Your task to perform on an android device: Clear the shopping cart on newegg.com. Search for "logitech g pro" on newegg.com, select the first entry, add it to the cart, then select checkout. Image 0: 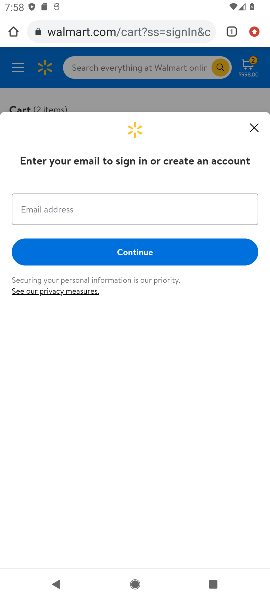
Step 0: press home button
Your task to perform on an android device: Clear the shopping cart on newegg.com. Search for "logitech g pro" on newegg.com, select the first entry, add it to the cart, then select checkout. Image 1: 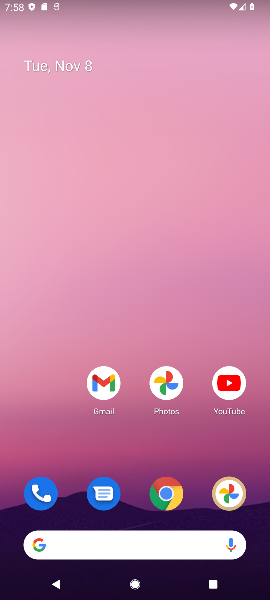
Step 1: click (169, 494)
Your task to perform on an android device: Clear the shopping cart on newegg.com. Search for "logitech g pro" on newegg.com, select the first entry, add it to the cart, then select checkout. Image 2: 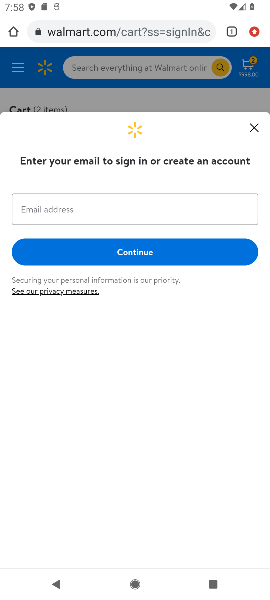
Step 2: click (88, 35)
Your task to perform on an android device: Clear the shopping cart on newegg.com. Search for "logitech g pro" on newegg.com, select the first entry, add it to the cart, then select checkout. Image 3: 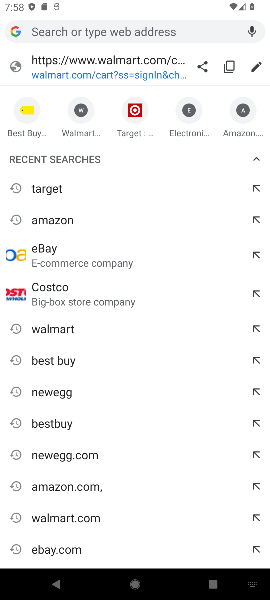
Step 3: click (67, 459)
Your task to perform on an android device: Clear the shopping cart on newegg.com. Search for "logitech g pro" on newegg.com, select the first entry, add it to the cart, then select checkout. Image 4: 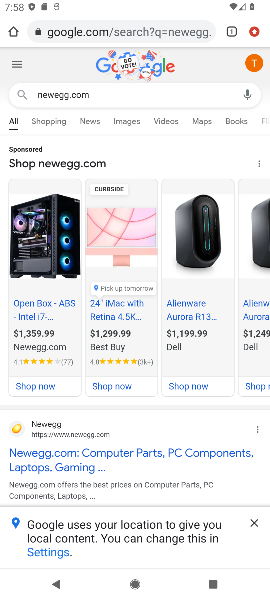
Step 4: click (37, 450)
Your task to perform on an android device: Clear the shopping cart on newegg.com. Search for "logitech g pro" on newegg.com, select the first entry, add it to the cart, then select checkout. Image 5: 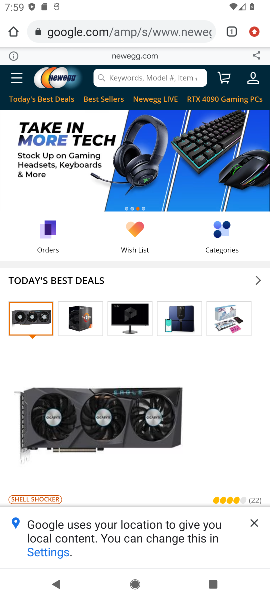
Step 5: click (224, 79)
Your task to perform on an android device: Clear the shopping cart on newegg.com. Search for "logitech g pro" on newegg.com, select the first entry, add it to the cart, then select checkout. Image 6: 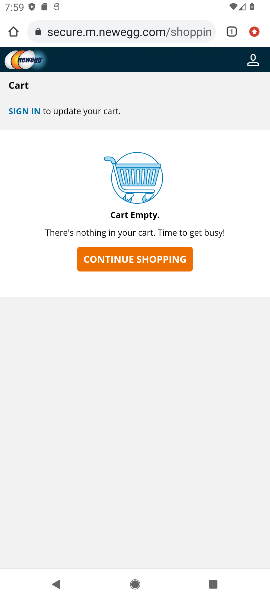
Step 6: click (134, 260)
Your task to perform on an android device: Clear the shopping cart on newegg.com. Search for "logitech g pro" on newegg.com, select the first entry, add it to the cart, then select checkout. Image 7: 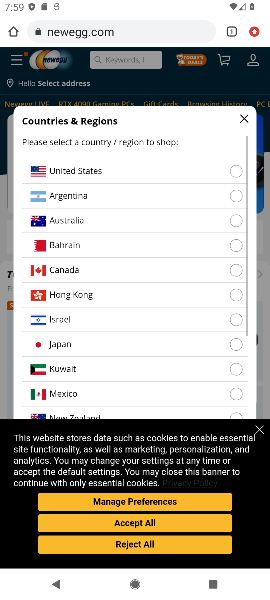
Step 7: click (87, 167)
Your task to perform on an android device: Clear the shopping cart on newegg.com. Search for "logitech g pro" on newegg.com, select the first entry, add it to the cart, then select checkout. Image 8: 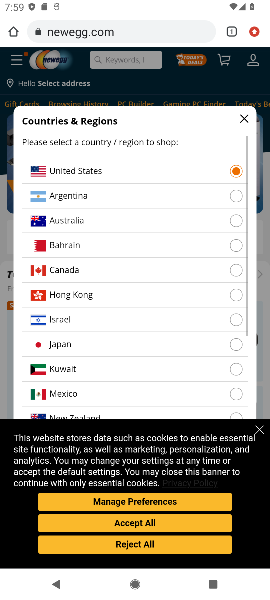
Step 8: click (245, 116)
Your task to perform on an android device: Clear the shopping cart on newegg.com. Search for "logitech g pro" on newegg.com, select the first entry, add it to the cart, then select checkout. Image 9: 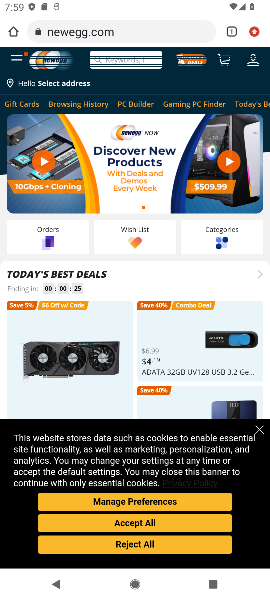
Step 9: click (132, 58)
Your task to perform on an android device: Clear the shopping cart on newegg.com. Search for "logitech g pro" on newegg.com, select the first entry, add it to the cart, then select checkout. Image 10: 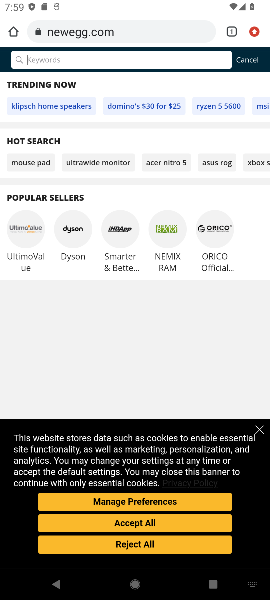
Step 10: type "logitech g pro"
Your task to perform on an android device: Clear the shopping cart on newegg.com. Search for "logitech g pro" on newegg.com, select the first entry, add it to the cart, then select checkout. Image 11: 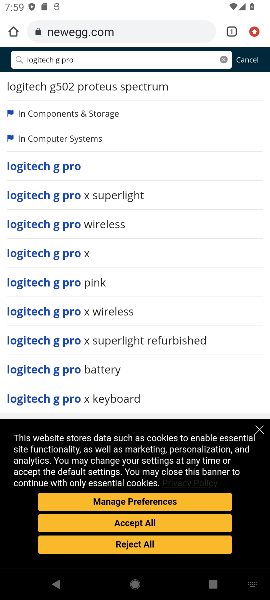
Step 11: click (62, 169)
Your task to perform on an android device: Clear the shopping cart on newegg.com. Search for "logitech g pro" on newegg.com, select the first entry, add it to the cart, then select checkout. Image 12: 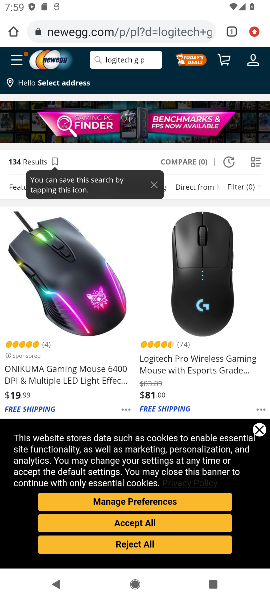
Step 12: task complete